Your task to perform on an android device: Open Google Maps and go to "Timeline" Image 0: 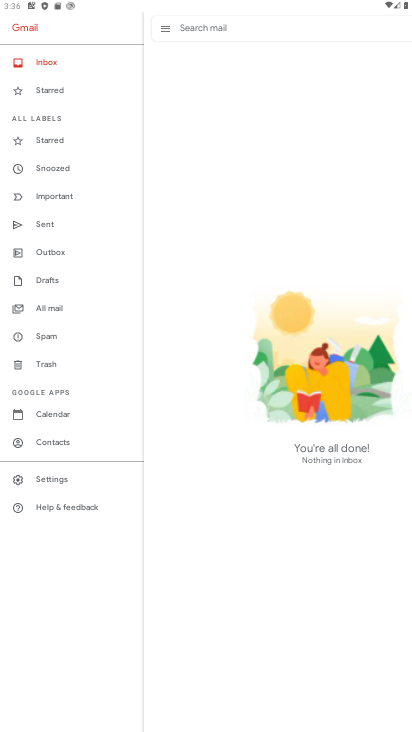
Step 0: press home button
Your task to perform on an android device: Open Google Maps and go to "Timeline" Image 1: 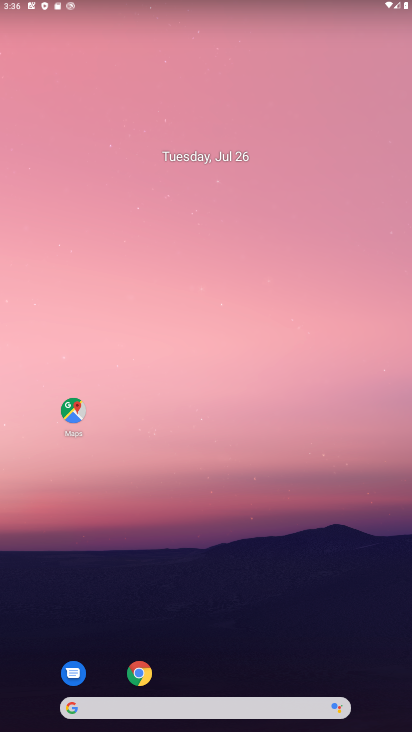
Step 1: click (64, 414)
Your task to perform on an android device: Open Google Maps and go to "Timeline" Image 2: 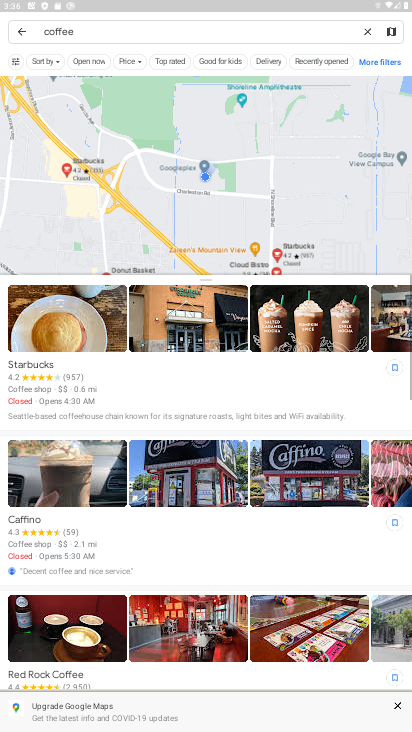
Step 2: click (24, 35)
Your task to perform on an android device: Open Google Maps and go to "Timeline" Image 3: 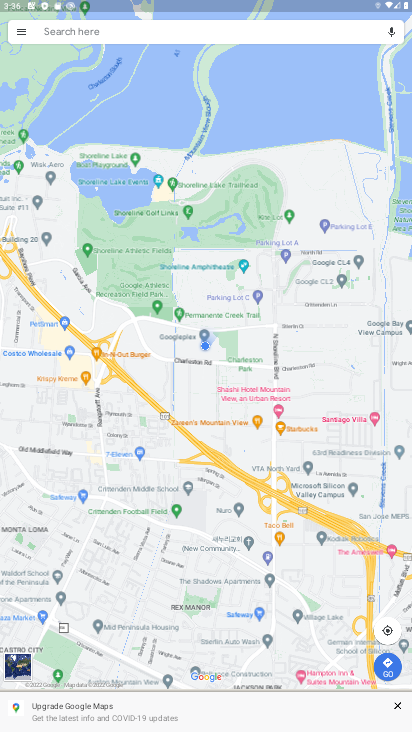
Step 3: click (24, 35)
Your task to perform on an android device: Open Google Maps and go to "Timeline" Image 4: 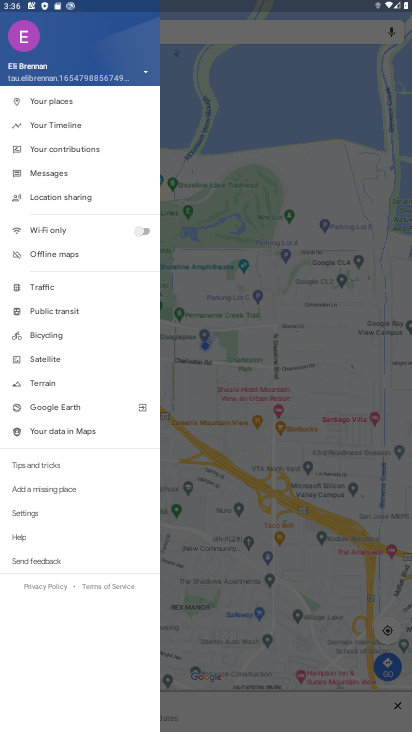
Step 4: click (37, 128)
Your task to perform on an android device: Open Google Maps and go to "Timeline" Image 5: 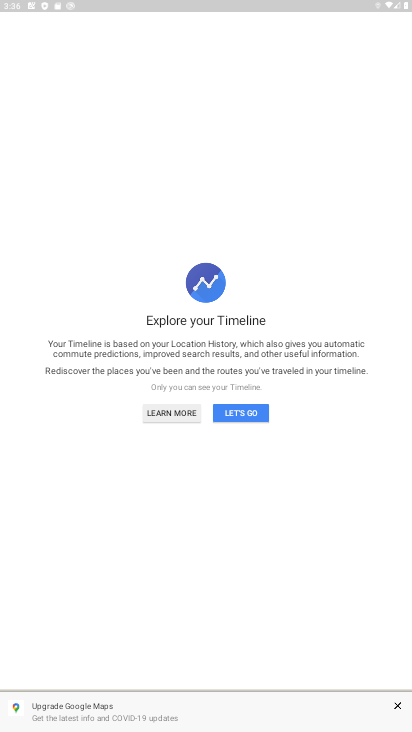
Step 5: click (233, 413)
Your task to perform on an android device: Open Google Maps and go to "Timeline" Image 6: 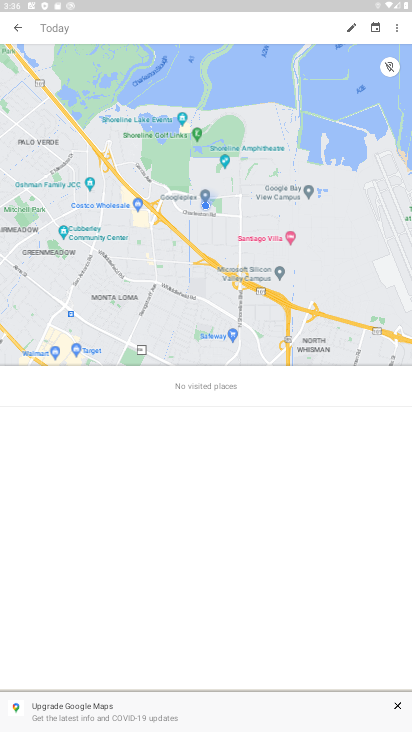
Step 6: task complete